Your task to perform on an android device: delete the emails in spam in the gmail app Image 0: 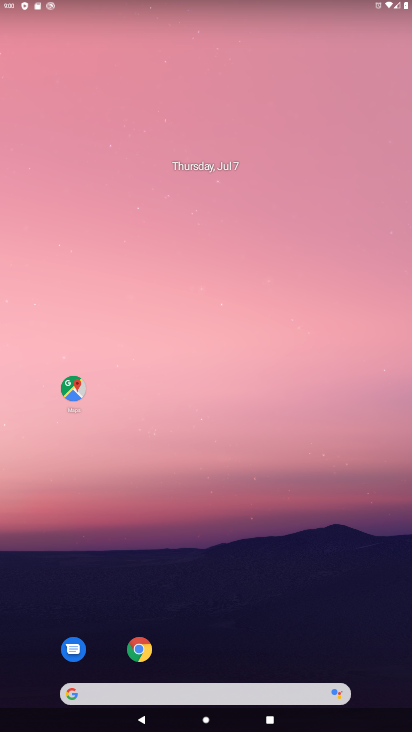
Step 0: drag from (277, 727) to (295, 150)
Your task to perform on an android device: delete the emails in spam in the gmail app Image 1: 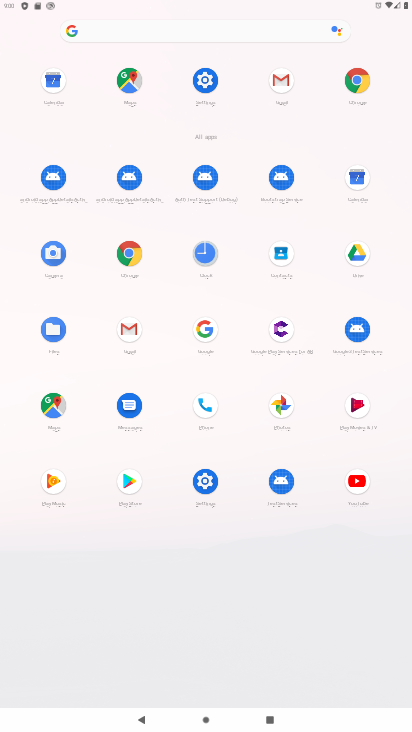
Step 1: click (128, 319)
Your task to perform on an android device: delete the emails in spam in the gmail app Image 2: 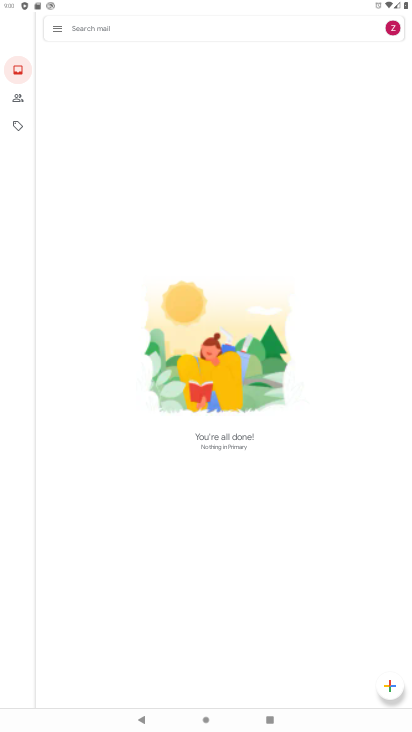
Step 2: click (46, 28)
Your task to perform on an android device: delete the emails in spam in the gmail app Image 3: 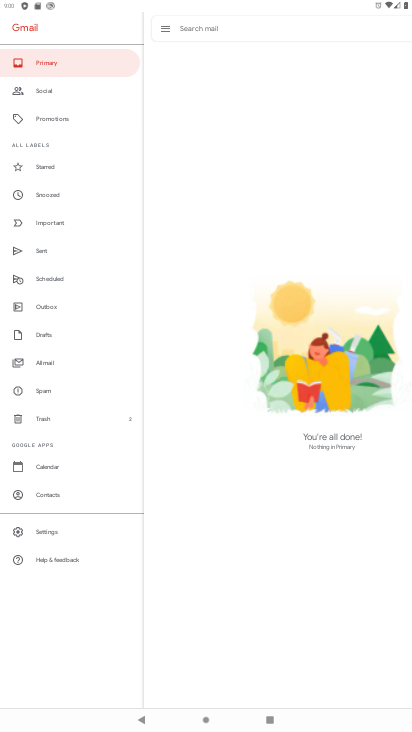
Step 3: click (46, 393)
Your task to perform on an android device: delete the emails in spam in the gmail app Image 4: 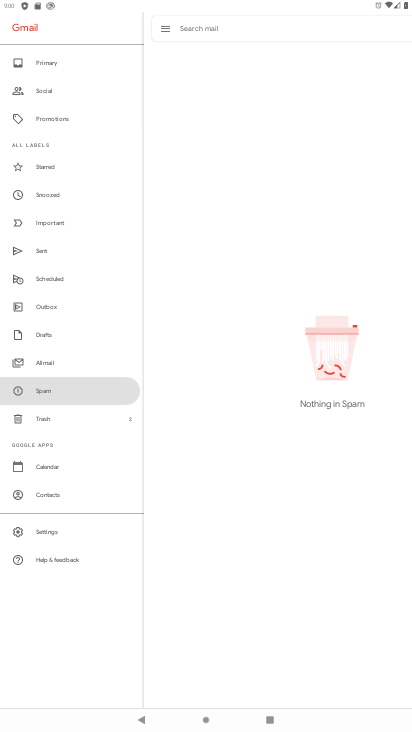
Step 4: task complete